Your task to perform on an android device: Open network settings Image 0: 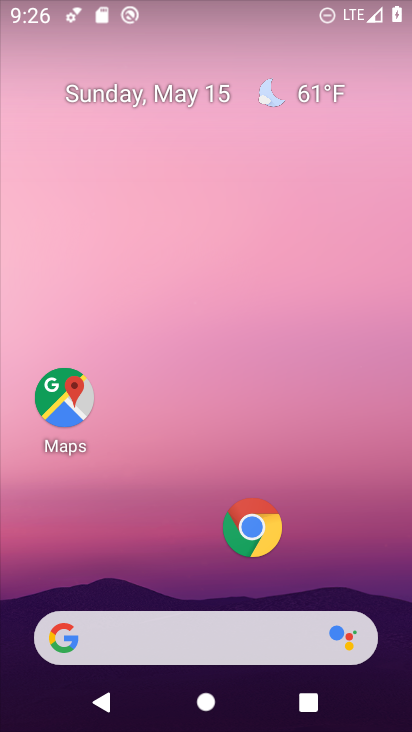
Step 0: drag from (201, 585) to (223, 11)
Your task to perform on an android device: Open network settings Image 1: 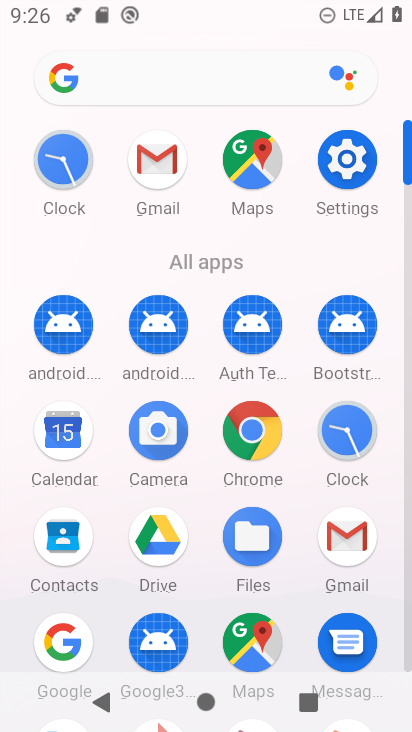
Step 1: click (348, 151)
Your task to perform on an android device: Open network settings Image 2: 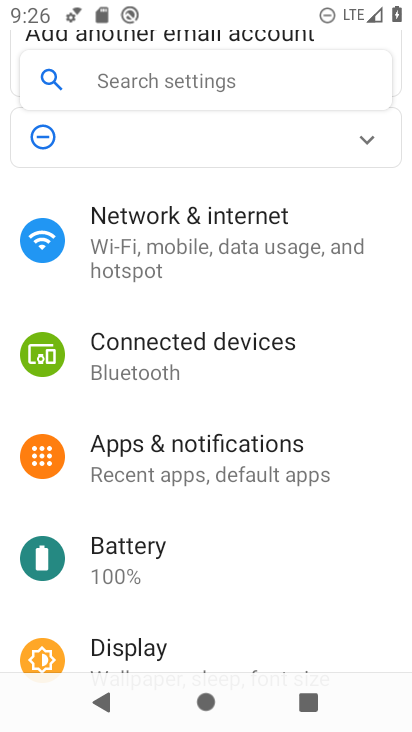
Step 2: click (208, 229)
Your task to perform on an android device: Open network settings Image 3: 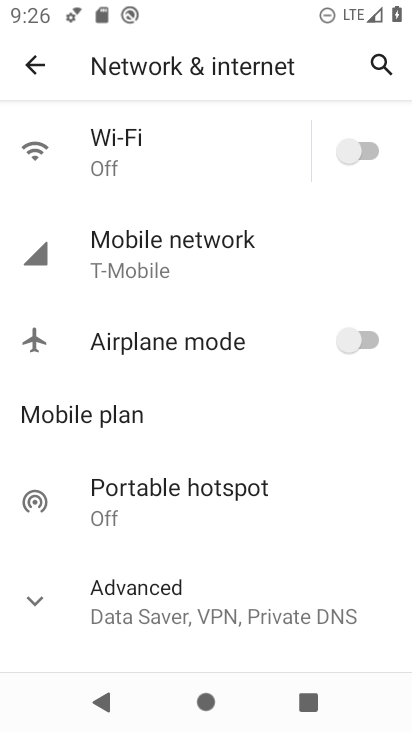
Step 3: click (38, 603)
Your task to perform on an android device: Open network settings Image 4: 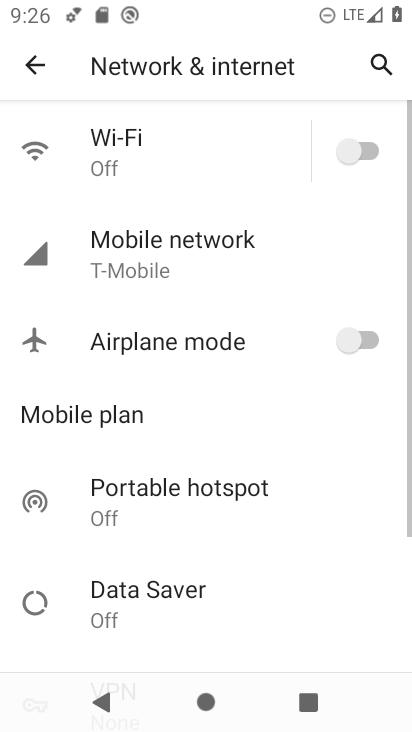
Step 4: task complete